Your task to perform on an android device: Open CNN.com Image 0: 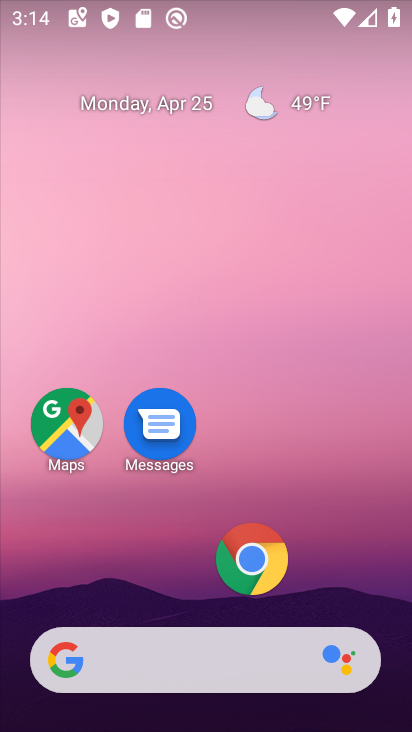
Step 0: click (180, 653)
Your task to perform on an android device: Open CNN.com Image 1: 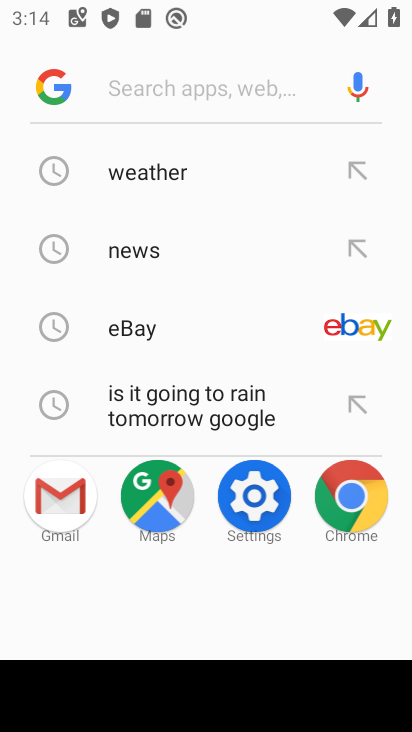
Step 1: type "CNN.com"
Your task to perform on an android device: Open CNN.com Image 2: 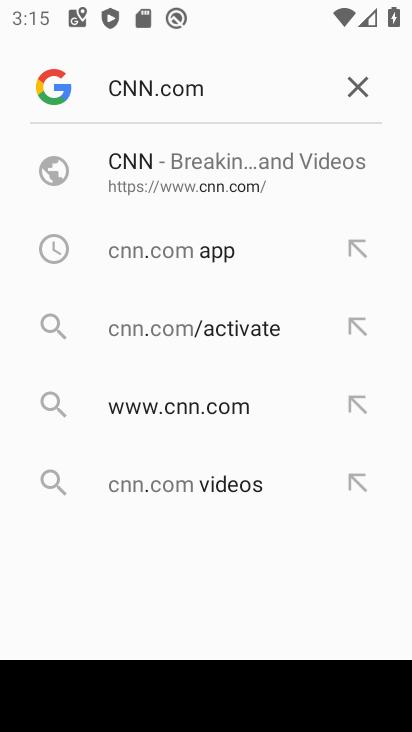
Step 2: click (192, 400)
Your task to perform on an android device: Open CNN.com Image 3: 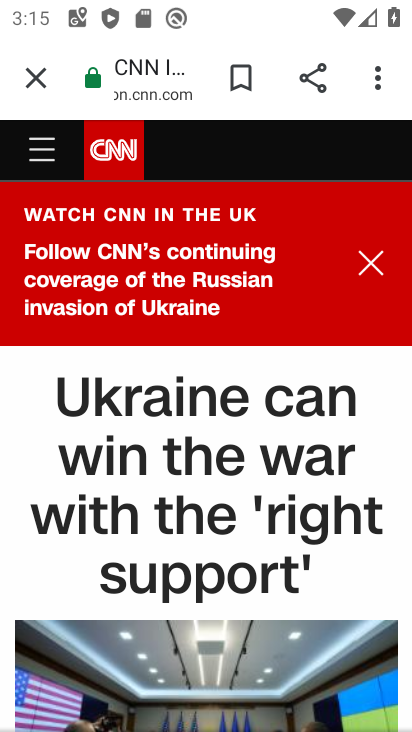
Step 3: task complete